Your task to perform on an android device: toggle wifi Image 0: 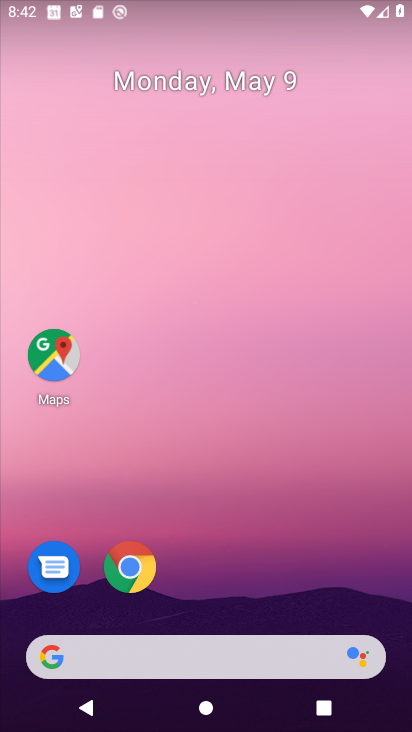
Step 0: drag from (216, 590) to (313, 34)
Your task to perform on an android device: toggle wifi Image 1: 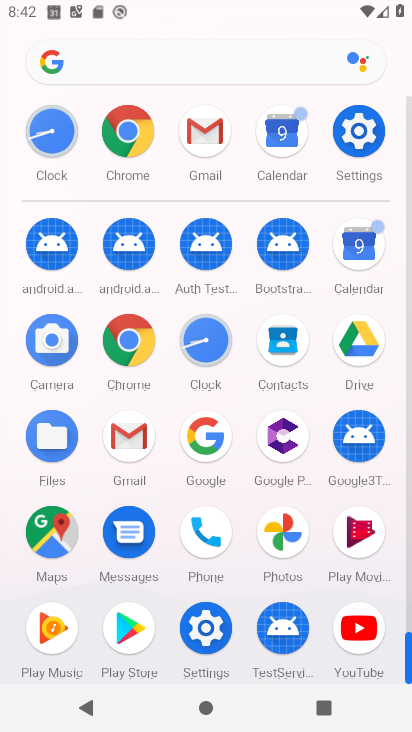
Step 1: click (363, 143)
Your task to perform on an android device: toggle wifi Image 2: 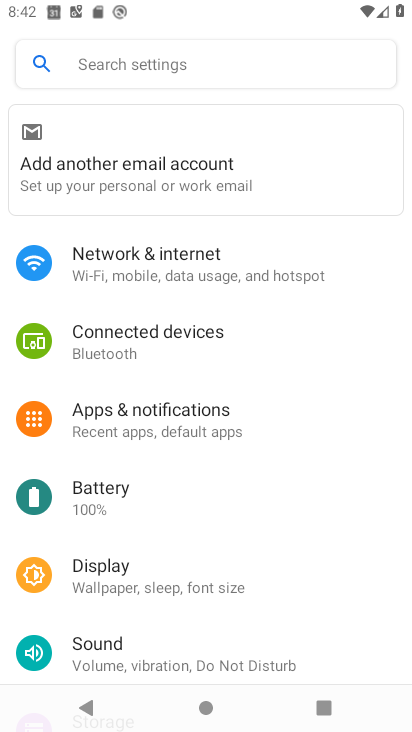
Step 2: click (175, 291)
Your task to perform on an android device: toggle wifi Image 3: 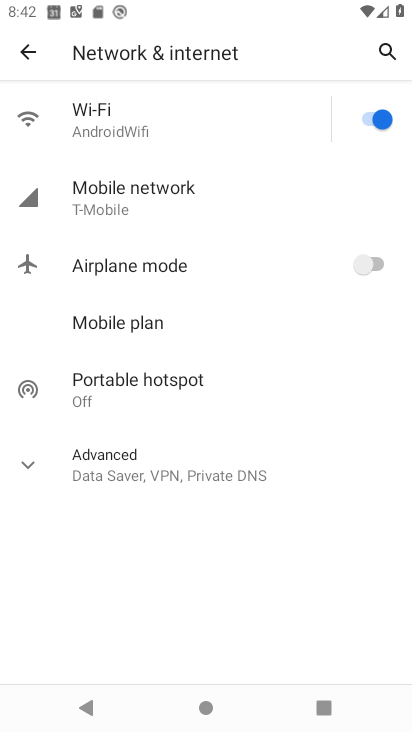
Step 3: click (373, 119)
Your task to perform on an android device: toggle wifi Image 4: 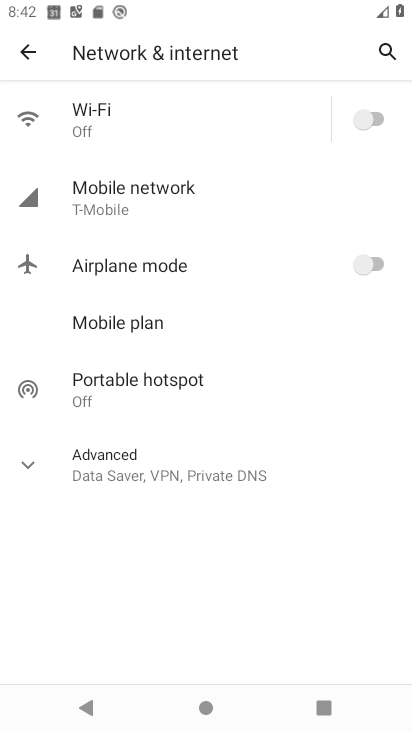
Step 4: task complete